Your task to perform on an android device: Open Chrome and go to the settings page Image 0: 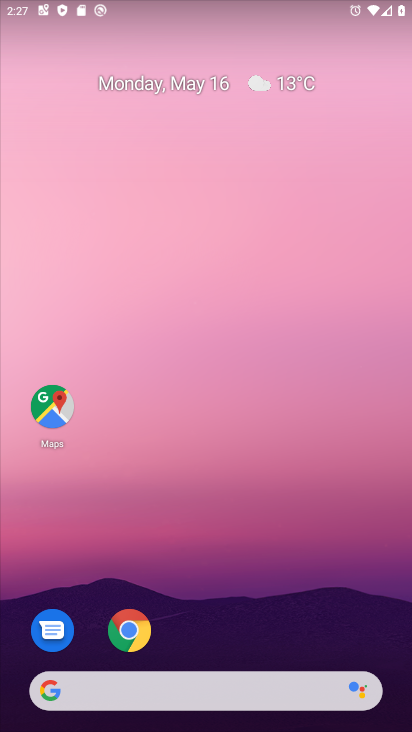
Step 0: click (131, 632)
Your task to perform on an android device: Open Chrome and go to the settings page Image 1: 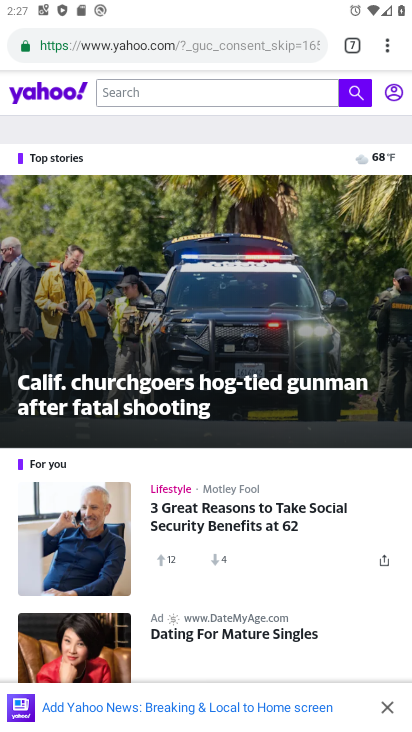
Step 1: click (391, 40)
Your task to perform on an android device: Open Chrome and go to the settings page Image 2: 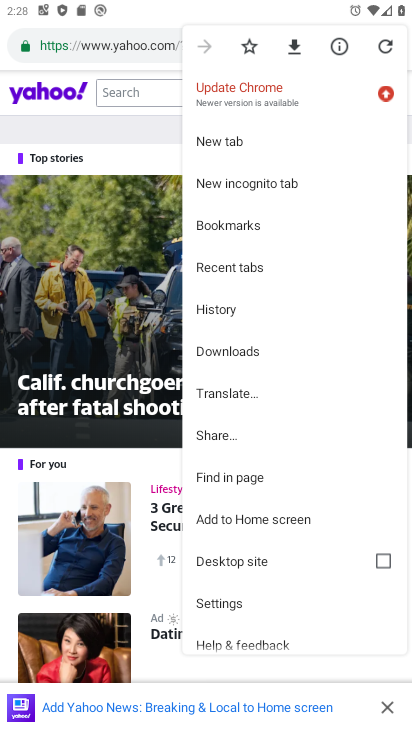
Step 2: click (247, 598)
Your task to perform on an android device: Open Chrome and go to the settings page Image 3: 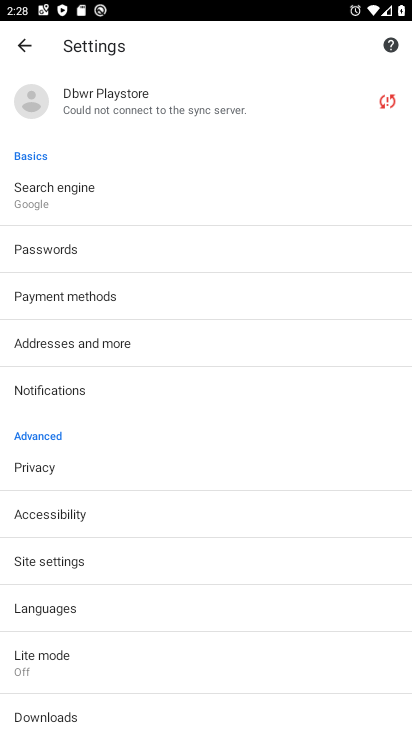
Step 3: task complete